Your task to perform on an android device: What's on my calendar tomorrow? Image 0: 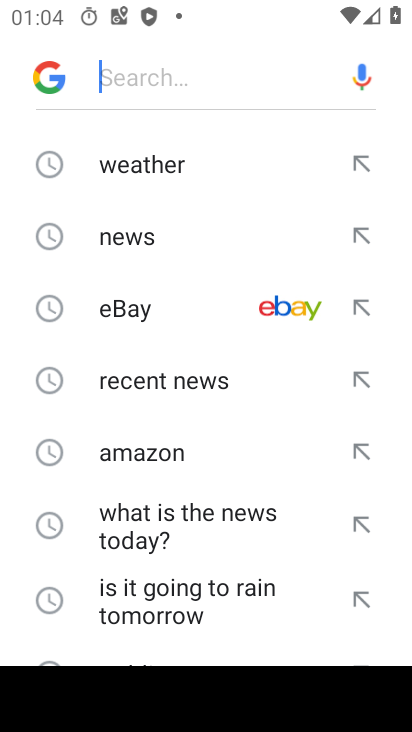
Step 0: press home button
Your task to perform on an android device: What's on my calendar tomorrow? Image 1: 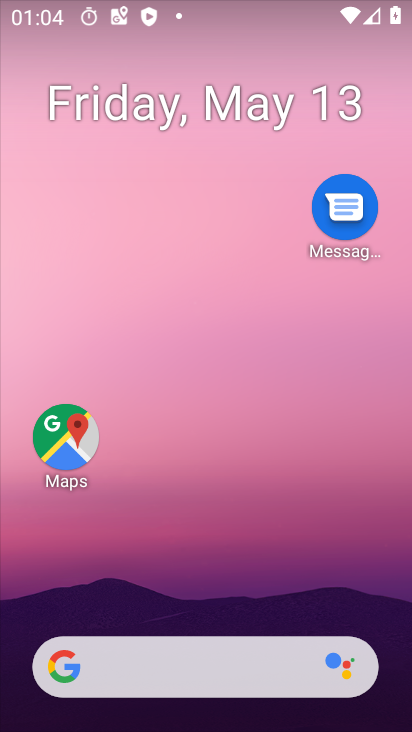
Step 1: drag from (257, 618) to (279, 79)
Your task to perform on an android device: What's on my calendar tomorrow? Image 2: 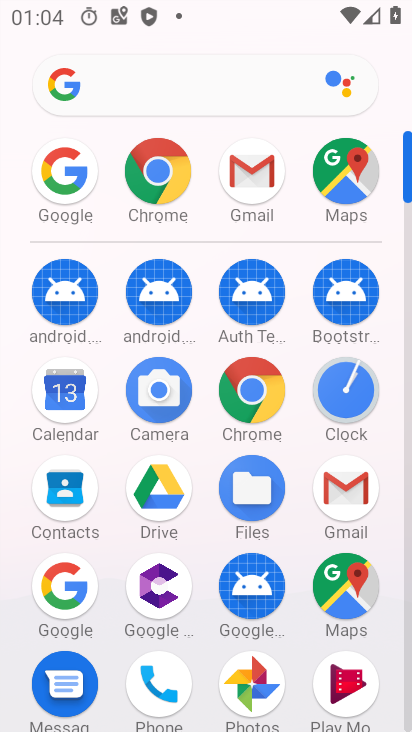
Step 2: click (83, 391)
Your task to perform on an android device: What's on my calendar tomorrow? Image 3: 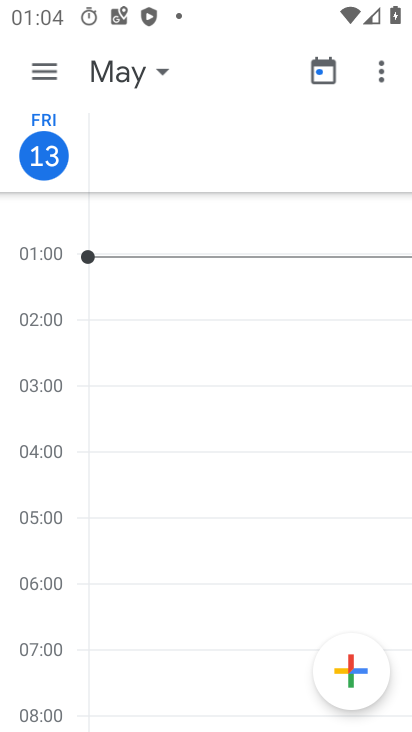
Step 3: click (146, 69)
Your task to perform on an android device: What's on my calendar tomorrow? Image 4: 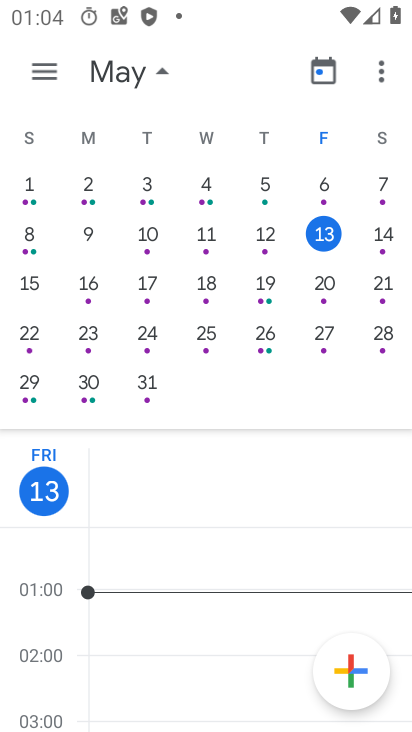
Step 4: click (388, 235)
Your task to perform on an android device: What's on my calendar tomorrow? Image 5: 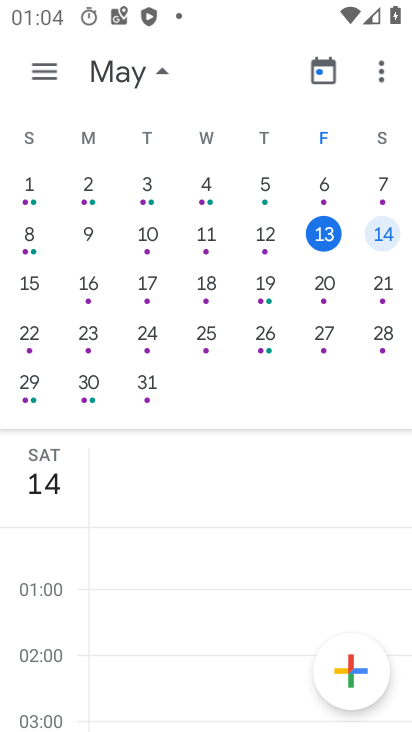
Step 5: click (373, 227)
Your task to perform on an android device: What's on my calendar tomorrow? Image 6: 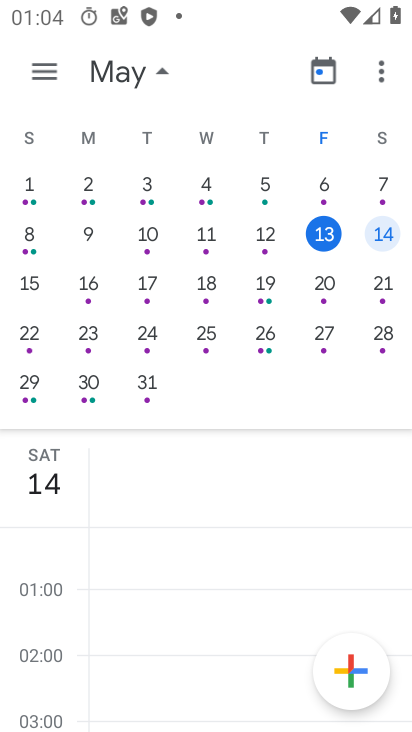
Step 6: task complete